Your task to perform on an android device: open a bookmark in the chrome app Image 0: 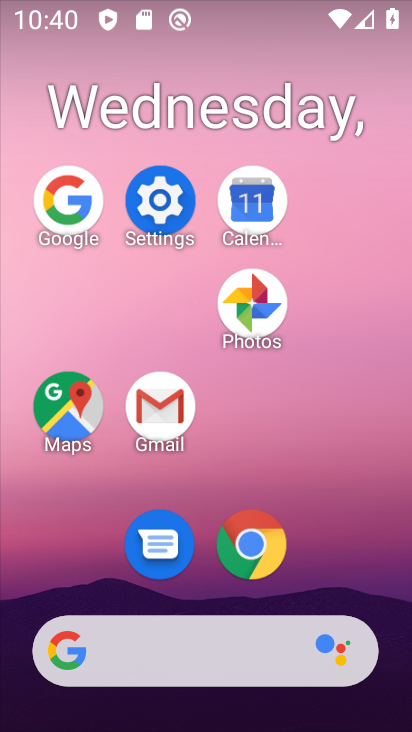
Step 0: click (270, 554)
Your task to perform on an android device: open a bookmark in the chrome app Image 1: 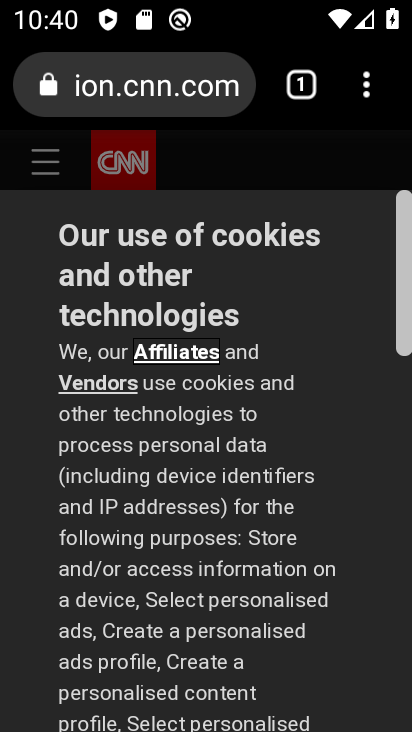
Step 1: click (382, 83)
Your task to perform on an android device: open a bookmark in the chrome app Image 2: 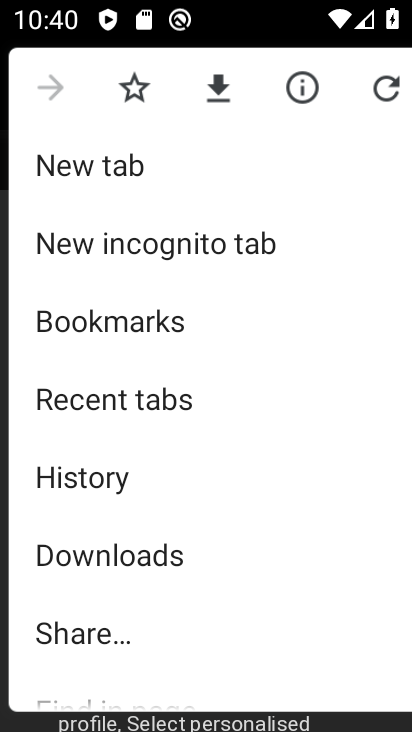
Step 2: click (205, 313)
Your task to perform on an android device: open a bookmark in the chrome app Image 3: 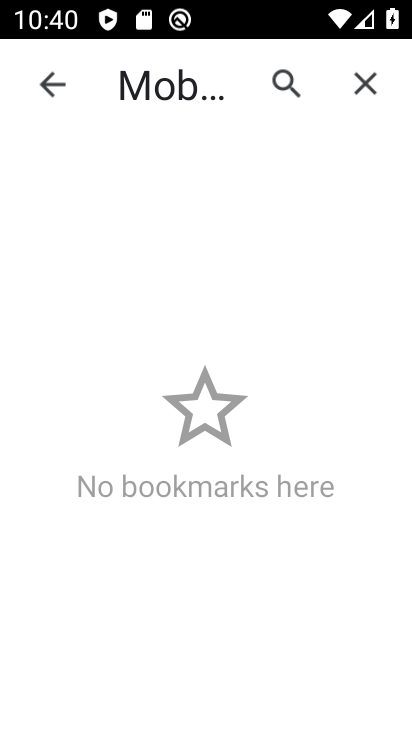
Step 3: task complete